Your task to perform on an android device: change text size in settings app Image 0: 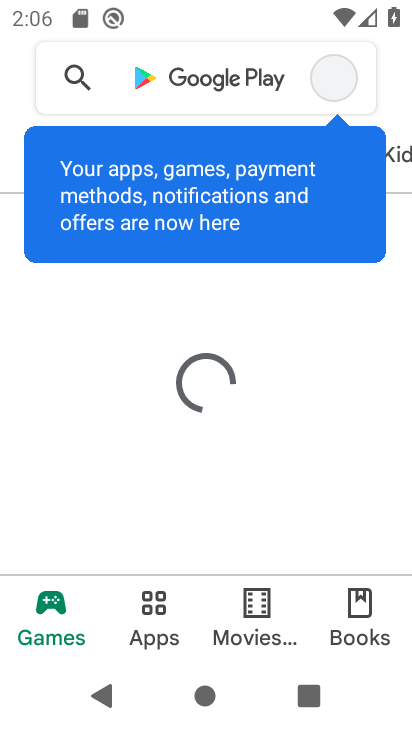
Step 0: press home button
Your task to perform on an android device: change text size in settings app Image 1: 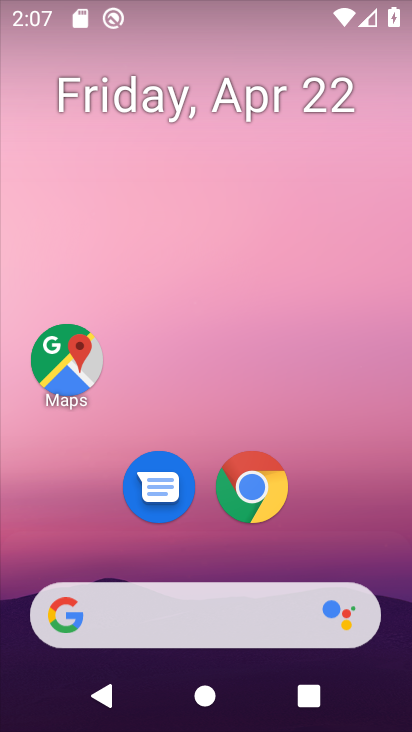
Step 1: drag from (201, 561) to (109, 95)
Your task to perform on an android device: change text size in settings app Image 2: 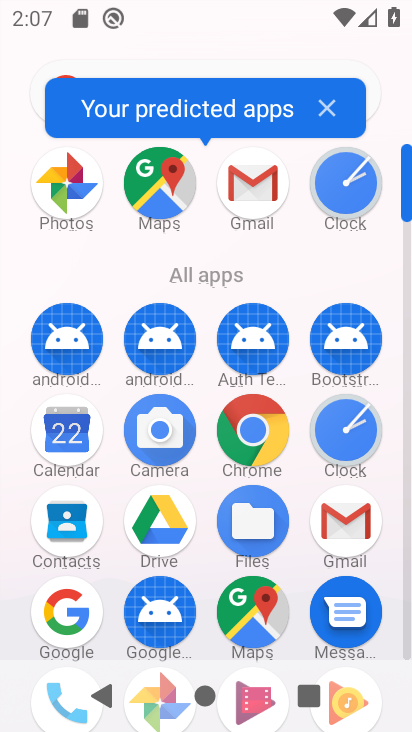
Step 2: drag from (182, 289) to (146, 31)
Your task to perform on an android device: change text size in settings app Image 3: 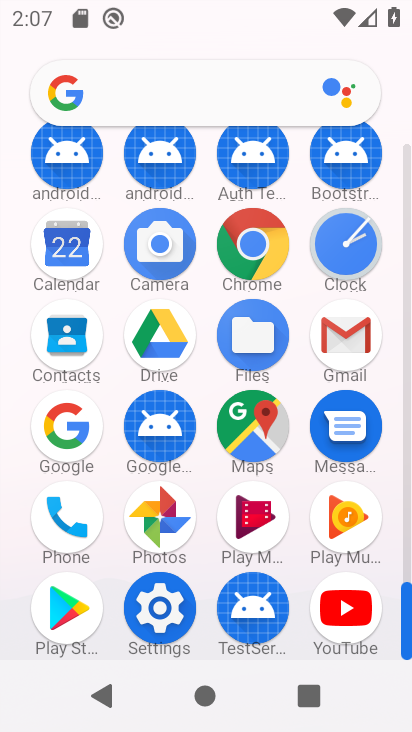
Step 3: click (155, 617)
Your task to perform on an android device: change text size in settings app Image 4: 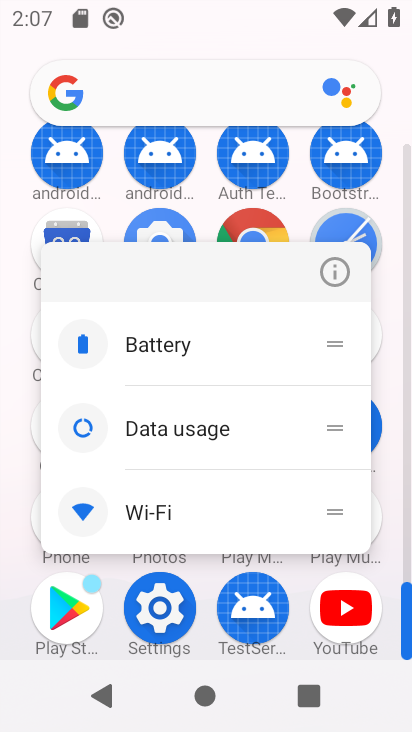
Step 4: click (330, 271)
Your task to perform on an android device: change text size in settings app Image 5: 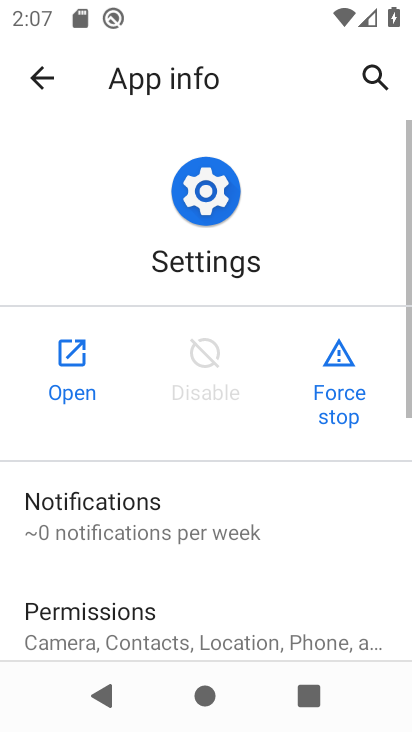
Step 5: click (80, 385)
Your task to perform on an android device: change text size in settings app Image 6: 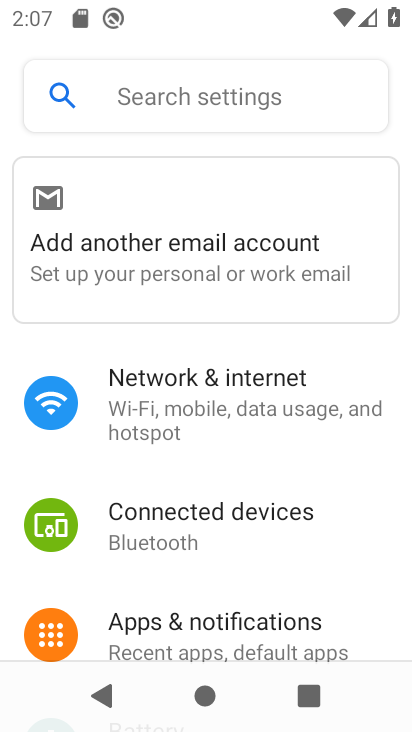
Step 6: drag from (189, 565) to (170, 313)
Your task to perform on an android device: change text size in settings app Image 7: 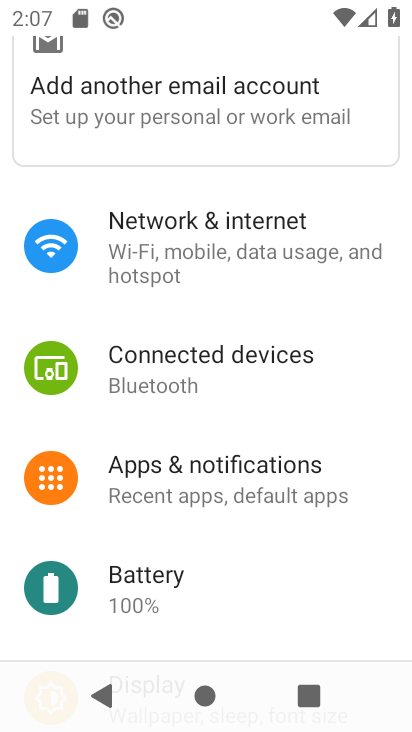
Step 7: drag from (223, 597) to (195, 369)
Your task to perform on an android device: change text size in settings app Image 8: 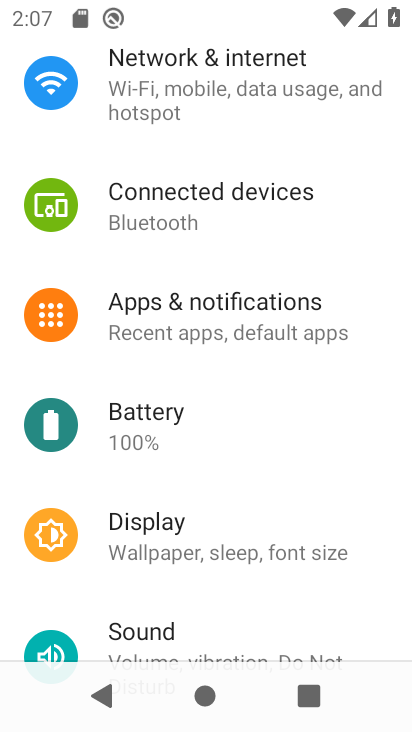
Step 8: click (193, 529)
Your task to perform on an android device: change text size in settings app Image 9: 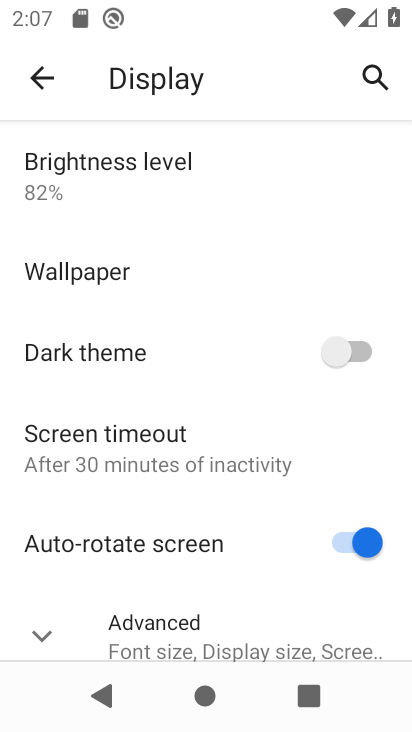
Step 9: drag from (237, 610) to (194, 319)
Your task to perform on an android device: change text size in settings app Image 10: 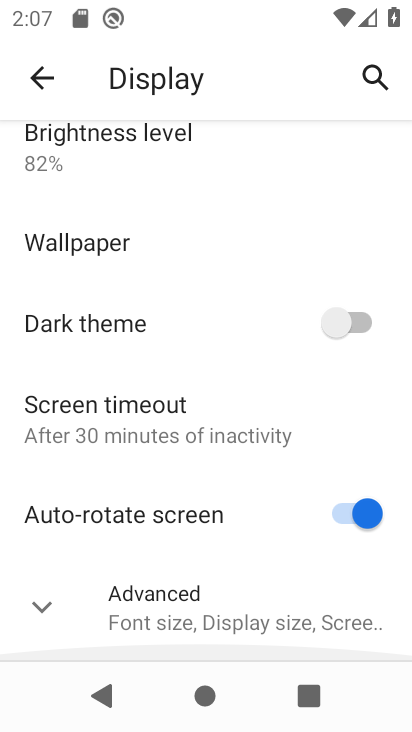
Step 10: click (221, 608)
Your task to perform on an android device: change text size in settings app Image 11: 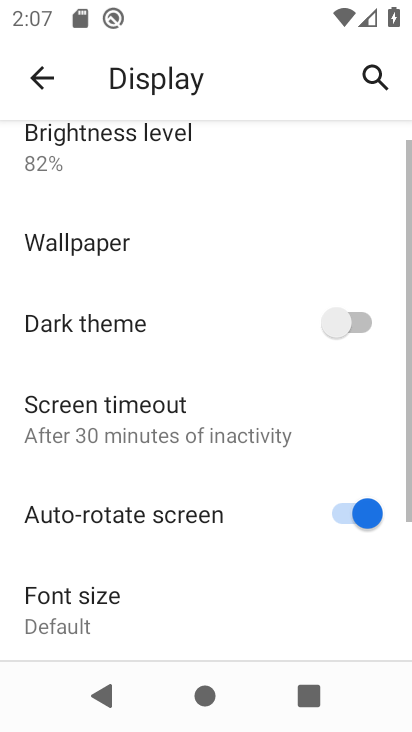
Step 11: drag from (206, 584) to (188, 362)
Your task to perform on an android device: change text size in settings app Image 12: 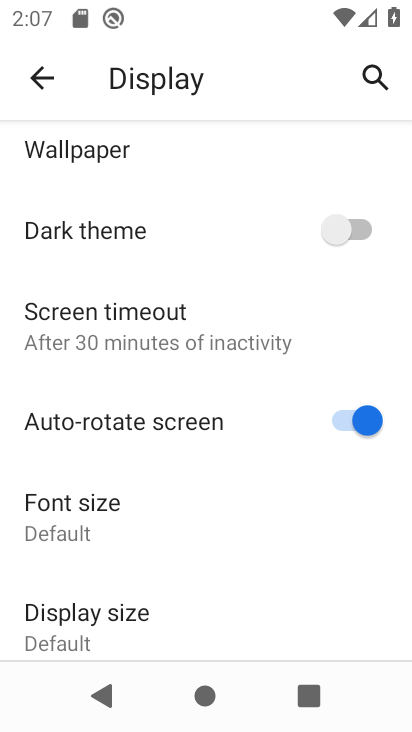
Step 12: click (153, 520)
Your task to perform on an android device: change text size in settings app Image 13: 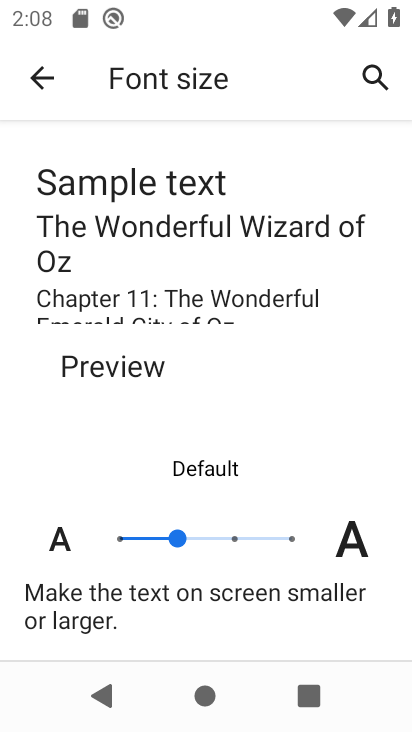
Step 13: click (115, 537)
Your task to perform on an android device: change text size in settings app Image 14: 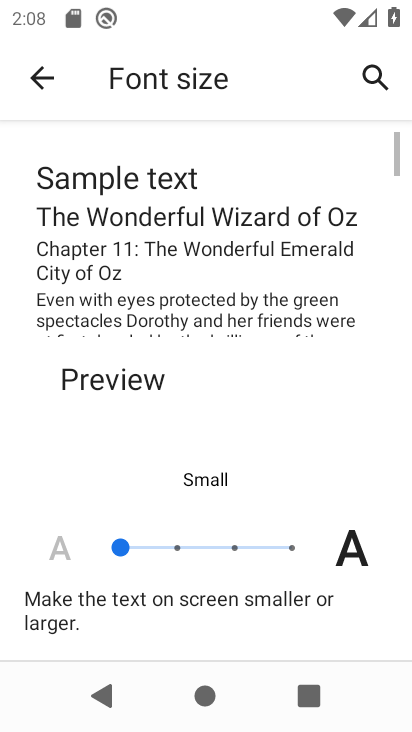
Step 14: task complete